Your task to perform on an android device: turn on priority inbox in the gmail app Image 0: 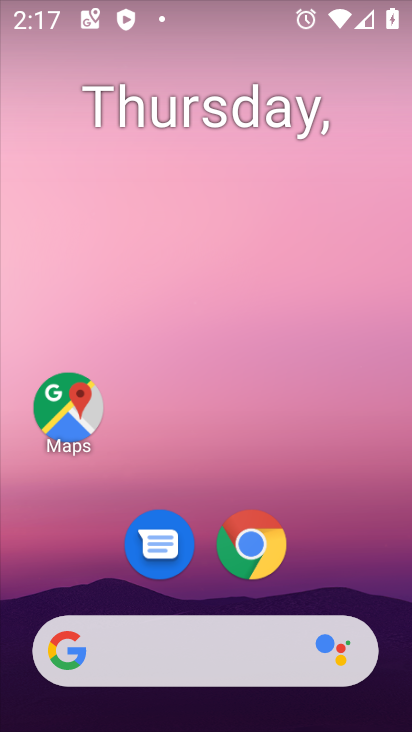
Step 0: drag from (311, 573) to (301, 245)
Your task to perform on an android device: turn on priority inbox in the gmail app Image 1: 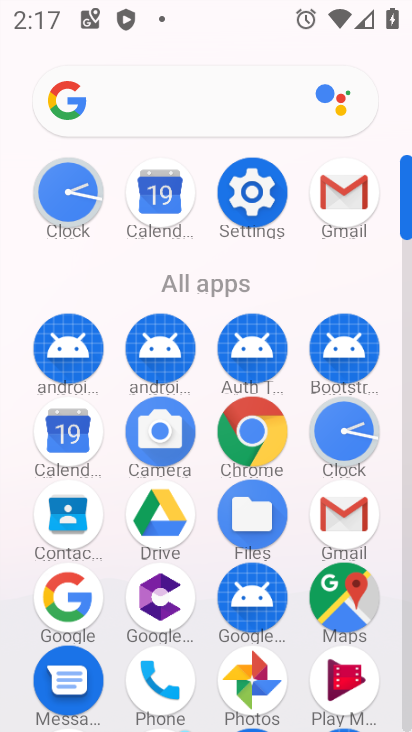
Step 1: click (347, 228)
Your task to perform on an android device: turn on priority inbox in the gmail app Image 2: 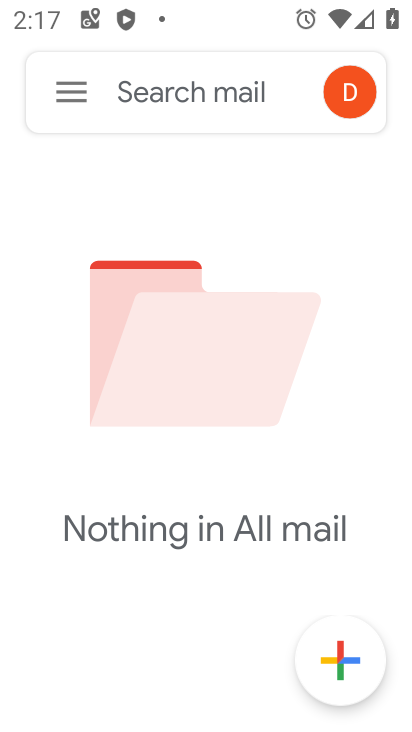
Step 2: click (86, 79)
Your task to perform on an android device: turn on priority inbox in the gmail app Image 3: 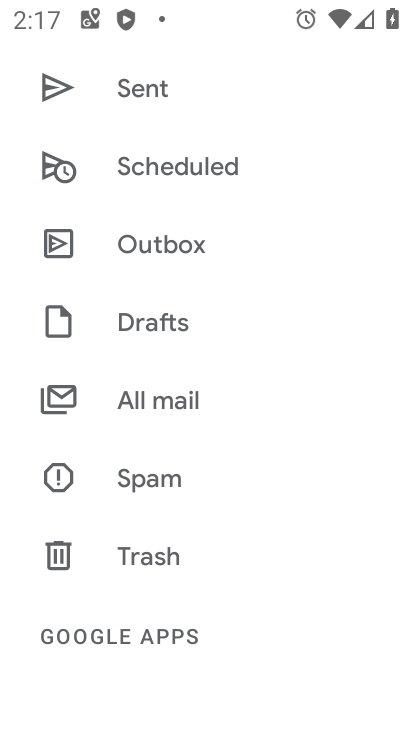
Step 3: drag from (197, 602) to (208, 219)
Your task to perform on an android device: turn on priority inbox in the gmail app Image 4: 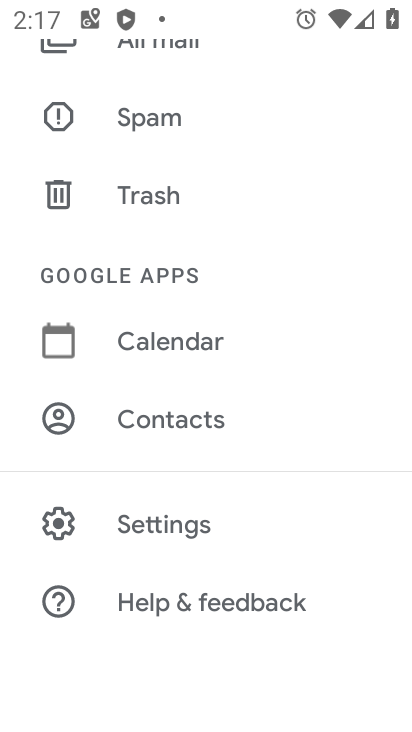
Step 4: click (207, 529)
Your task to perform on an android device: turn on priority inbox in the gmail app Image 5: 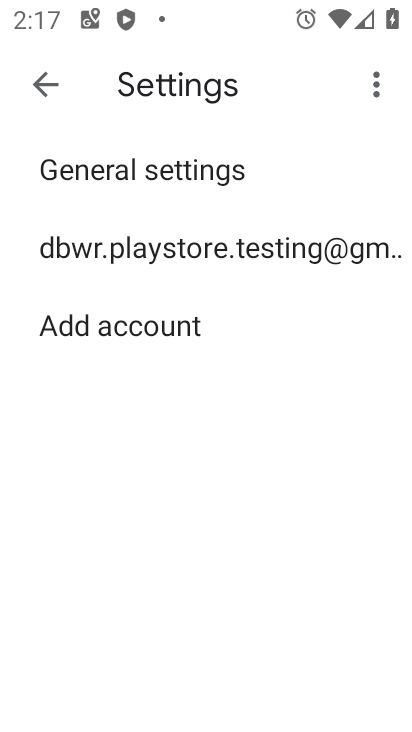
Step 5: click (210, 257)
Your task to perform on an android device: turn on priority inbox in the gmail app Image 6: 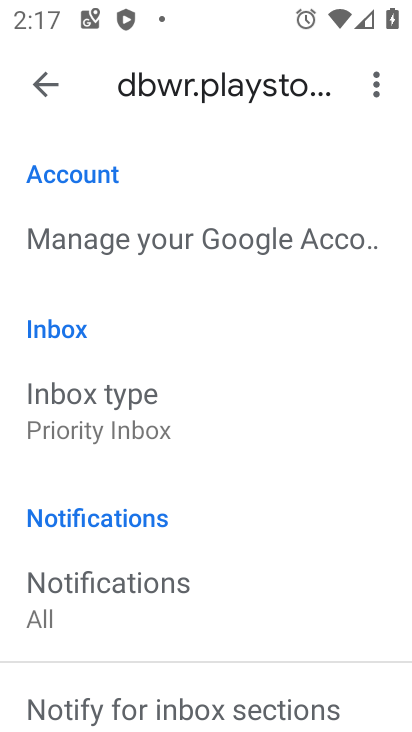
Step 6: task complete